Your task to perform on an android device: turn on wifi Image 0: 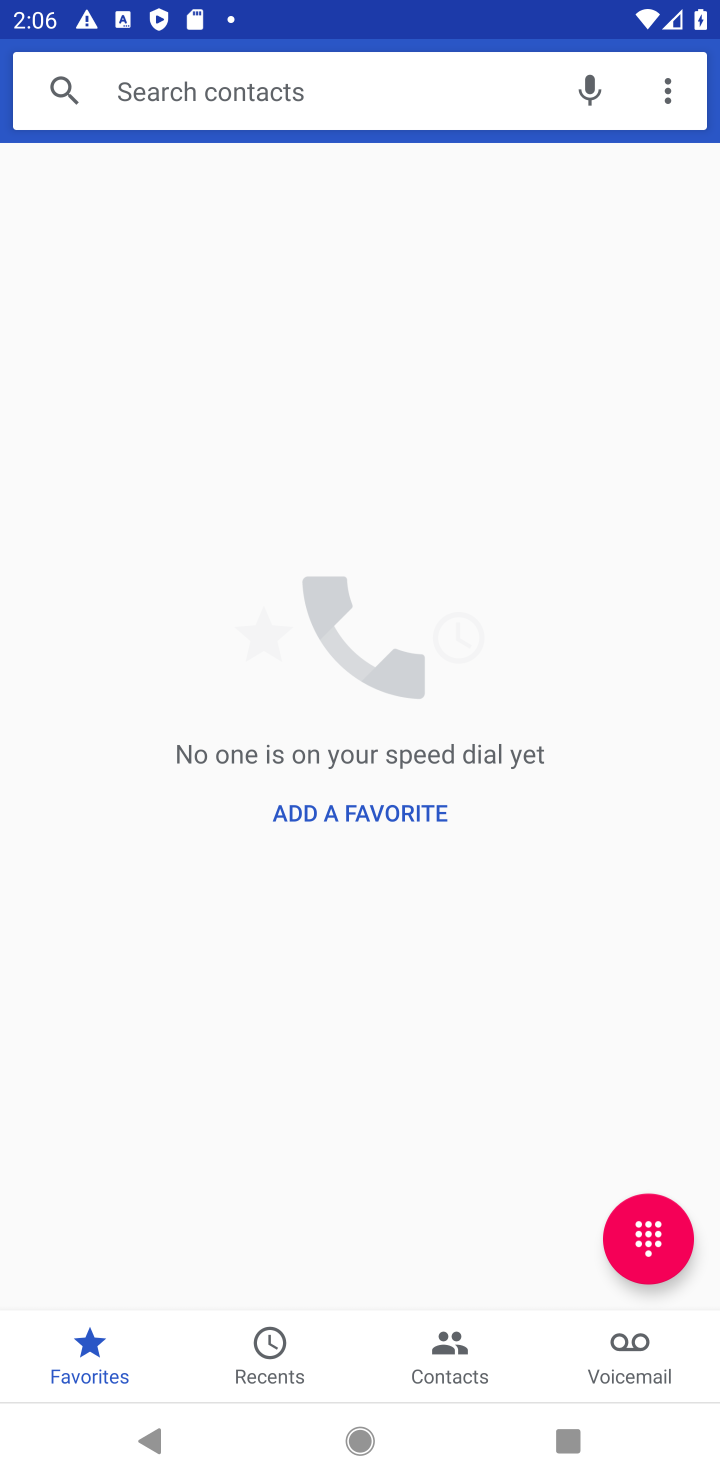
Step 0: press home button
Your task to perform on an android device: turn on wifi Image 1: 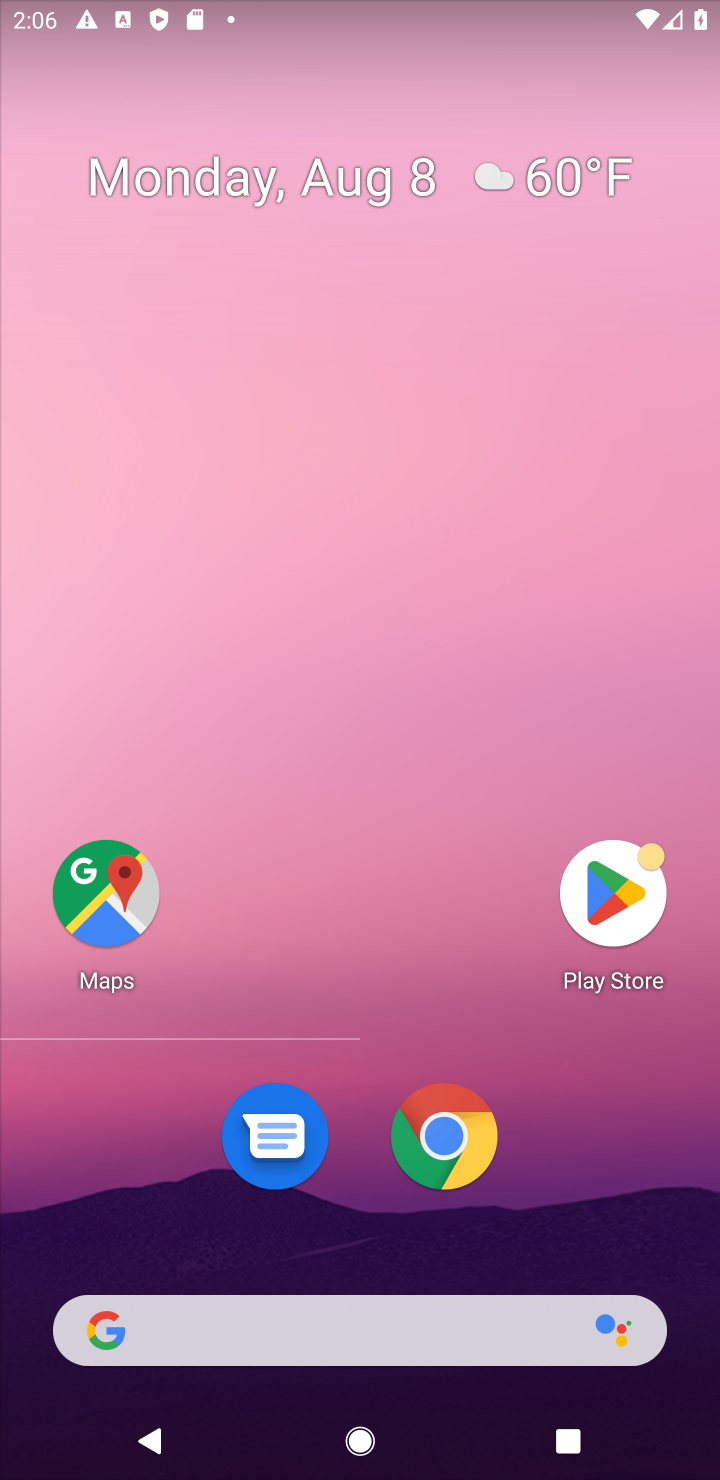
Step 1: drag from (55, 1416) to (465, 382)
Your task to perform on an android device: turn on wifi Image 2: 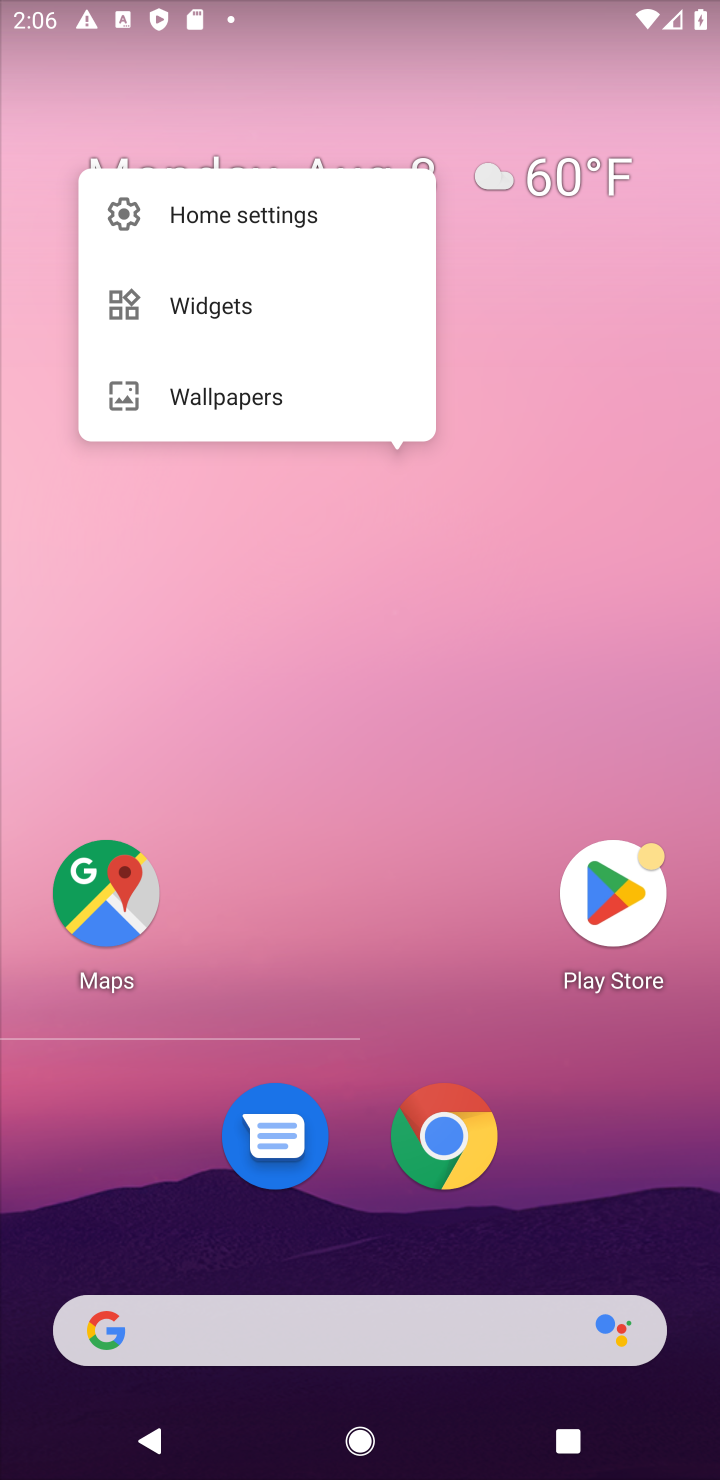
Step 2: drag from (30, 1430) to (308, 764)
Your task to perform on an android device: turn on wifi Image 3: 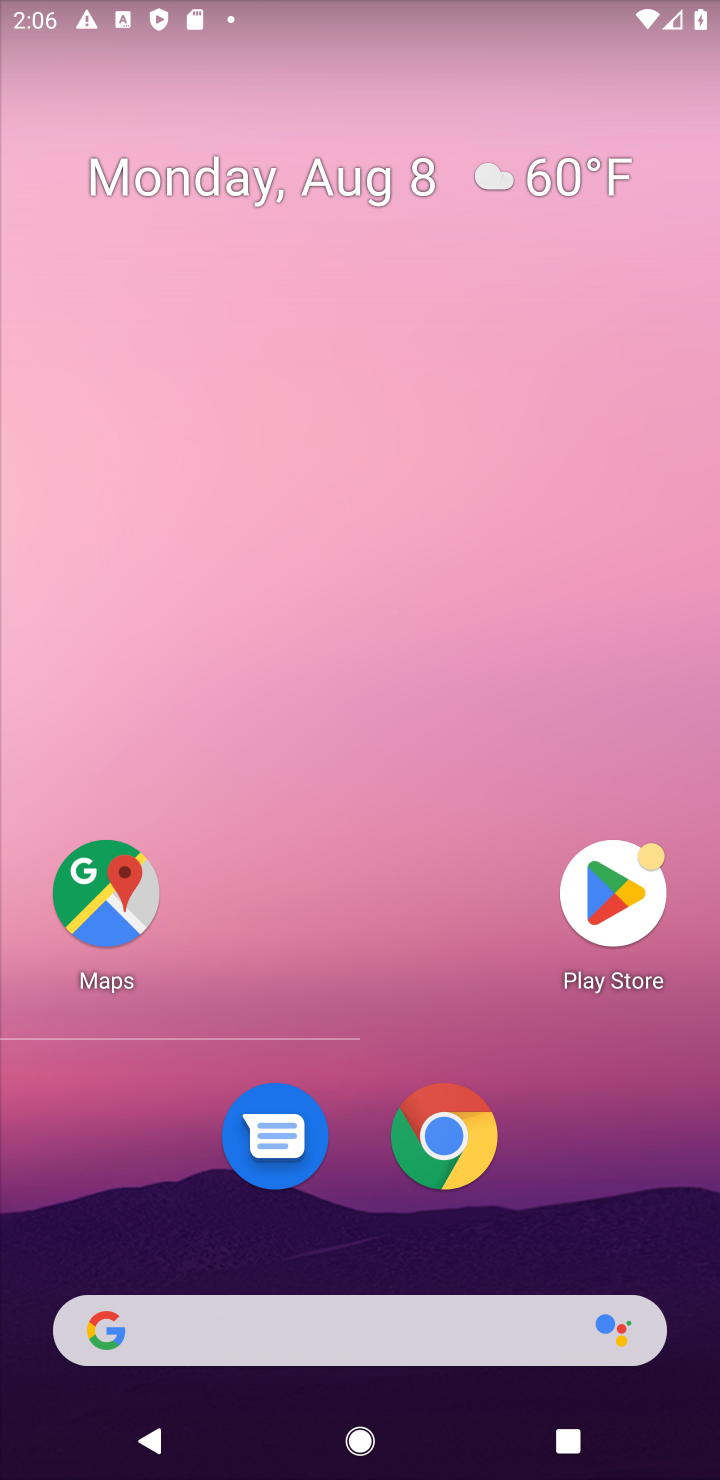
Step 3: drag from (106, 1378) to (480, 165)
Your task to perform on an android device: turn on wifi Image 4: 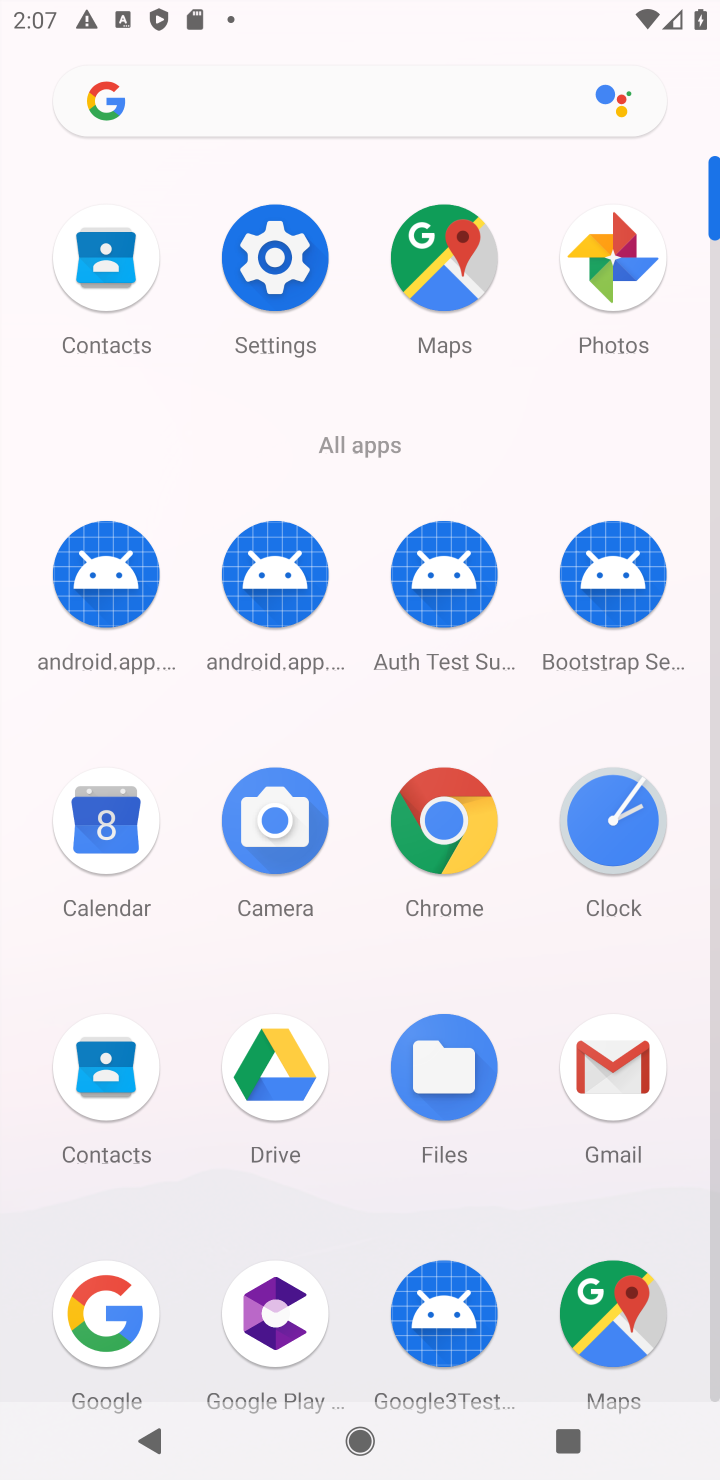
Step 4: click (293, 288)
Your task to perform on an android device: turn on wifi Image 5: 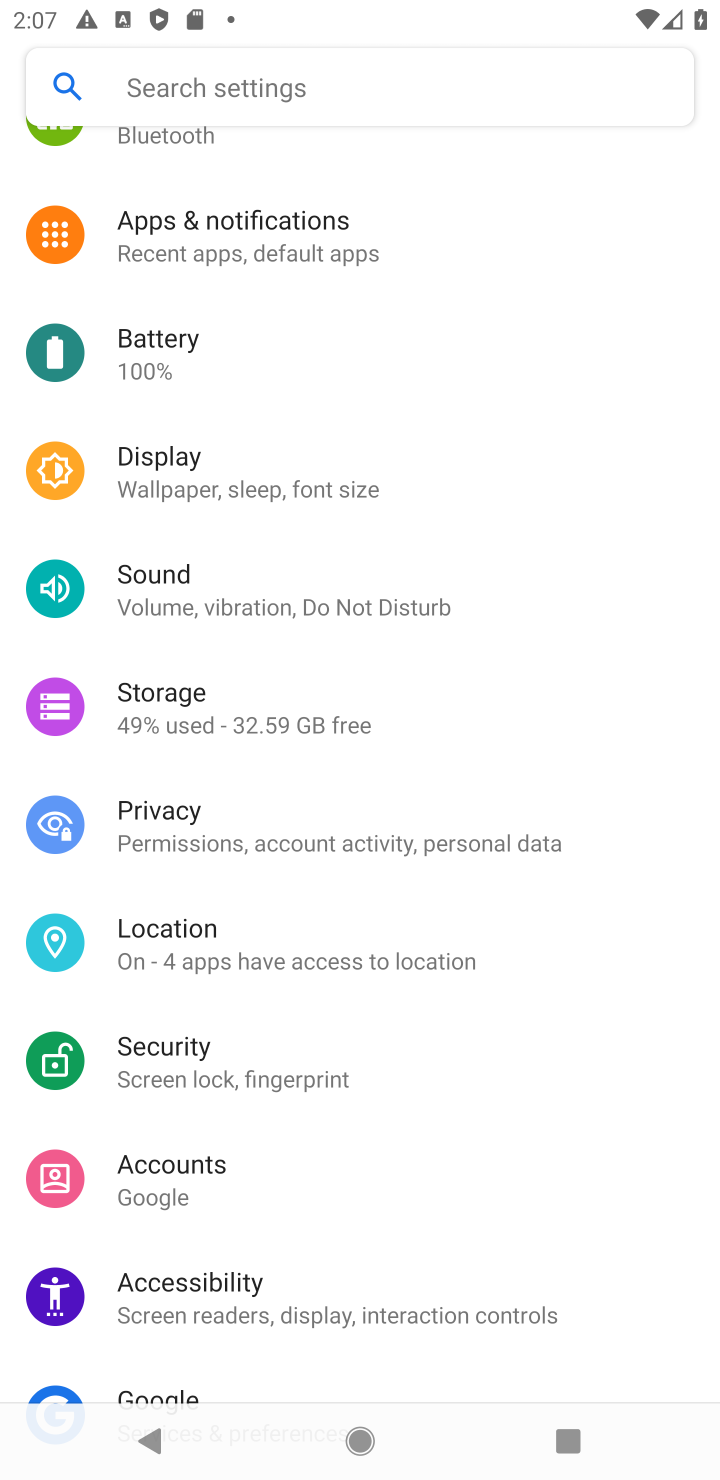
Step 5: click (585, 945)
Your task to perform on an android device: turn on wifi Image 6: 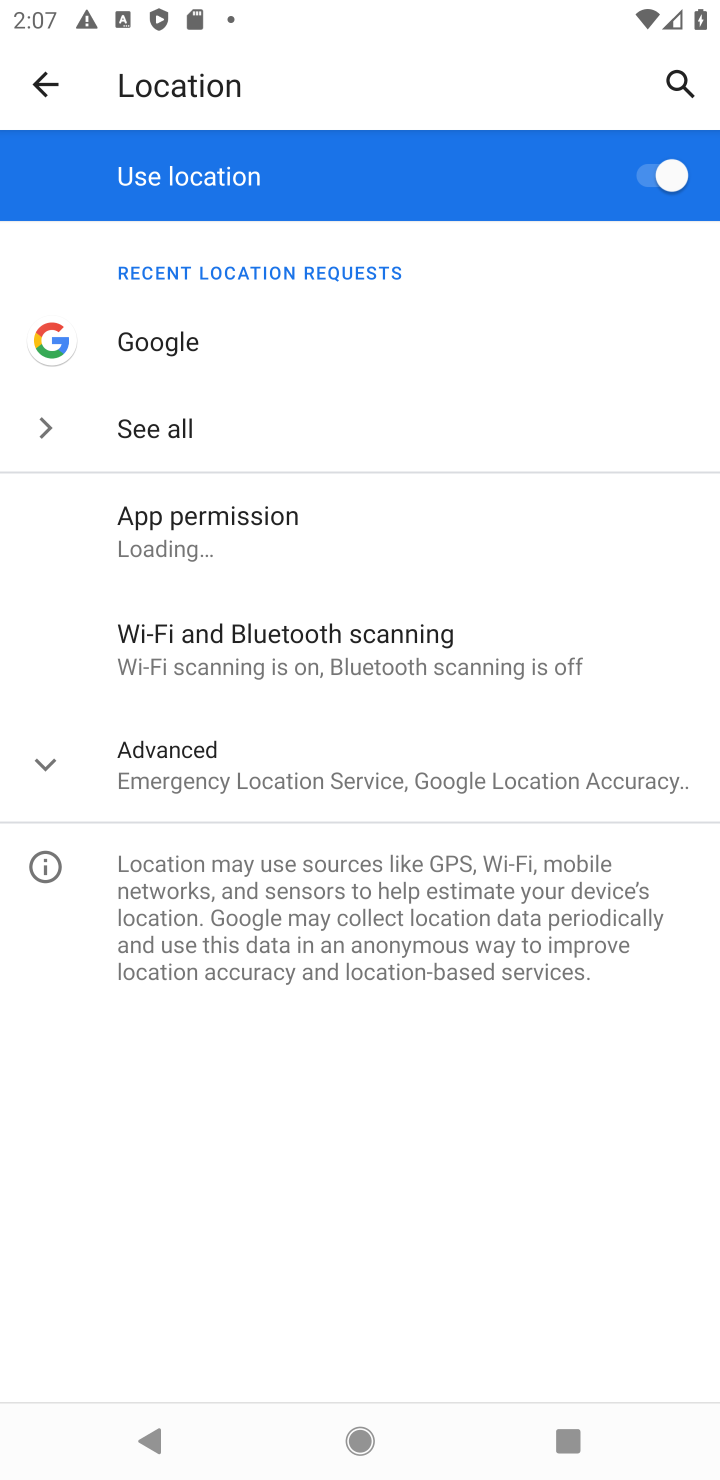
Step 6: click (47, 89)
Your task to perform on an android device: turn on wifi Image 7: 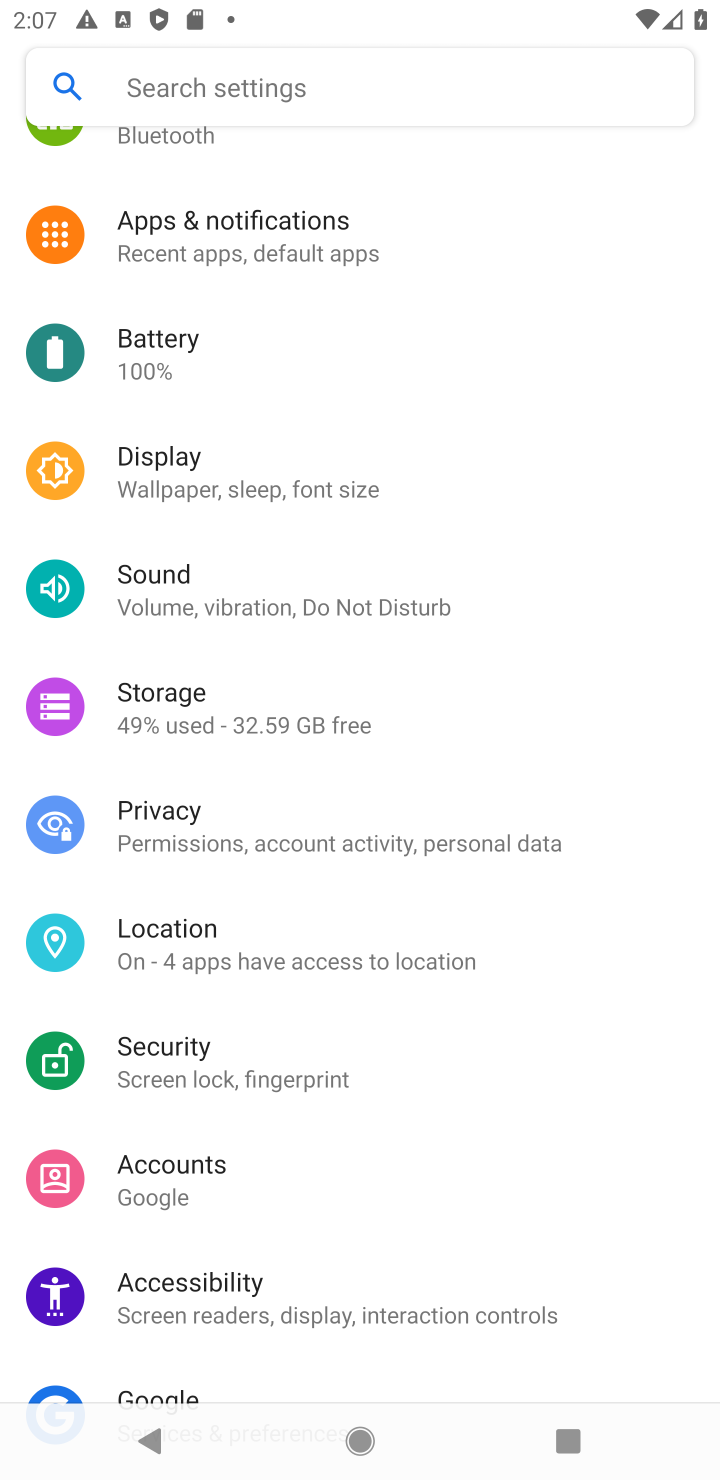
Step 7: drag from (593, 178) to (658, 1068)
Your task to perform on an android device: turn on wifi Image 8: 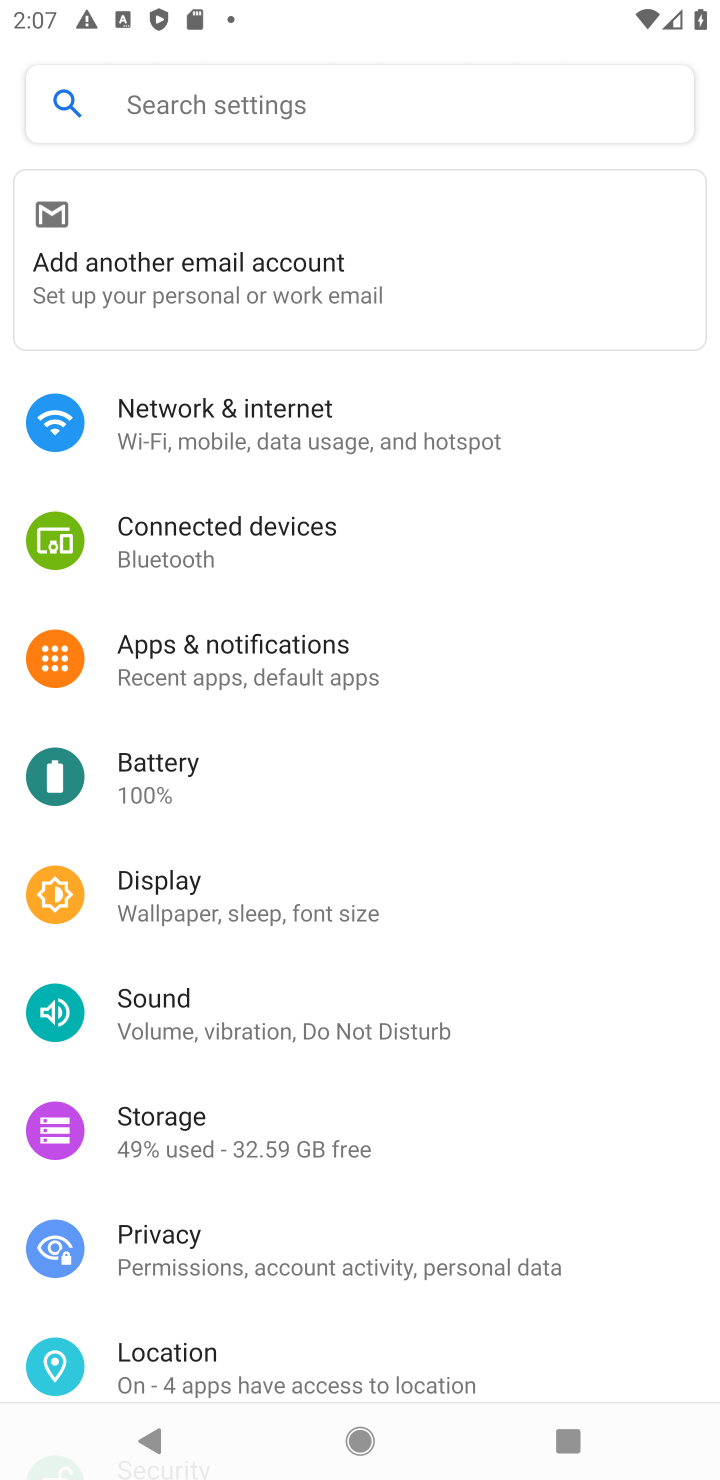
Step 8: click (375, 421)
Your task to perform on an android device: turn on wifi Image 9: 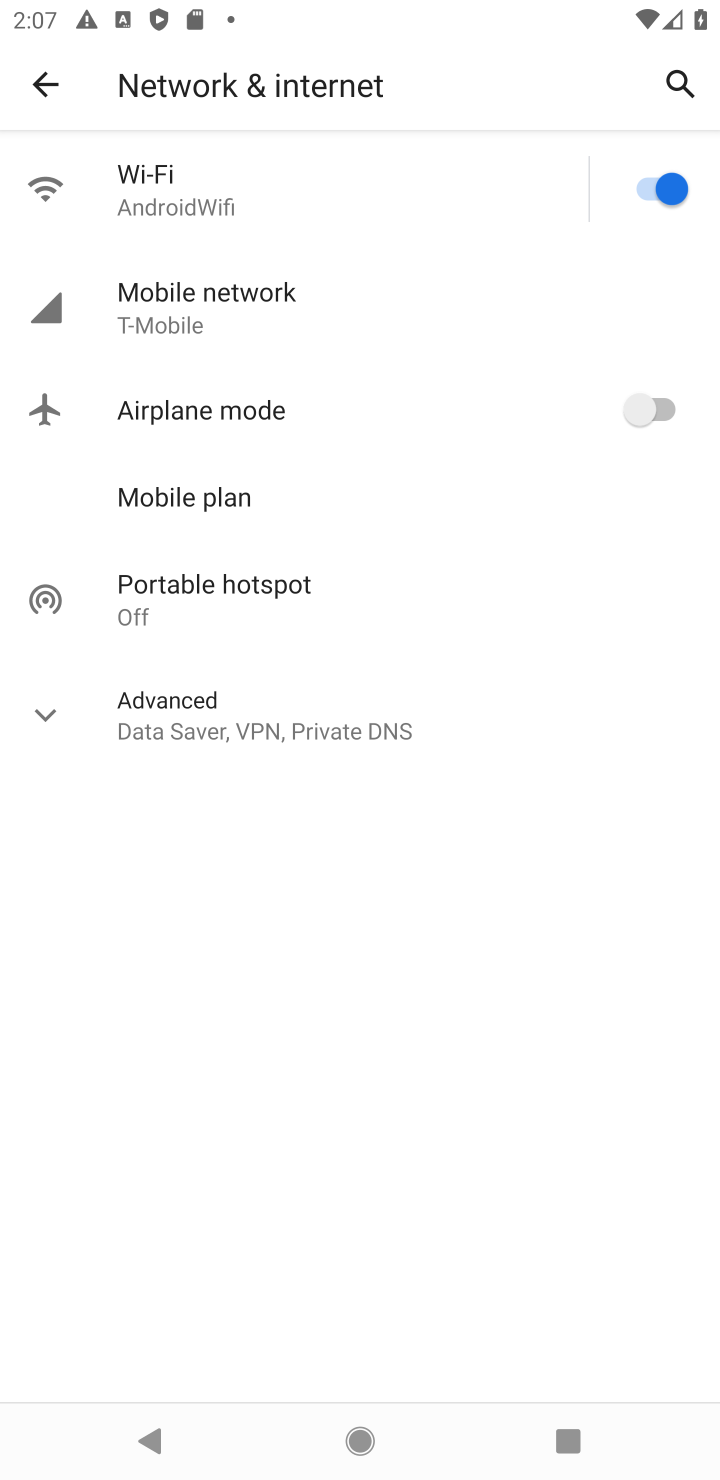
Step 9: task complete